Your task to perform on an android device: Show me the alarms in the clock app Image 0: 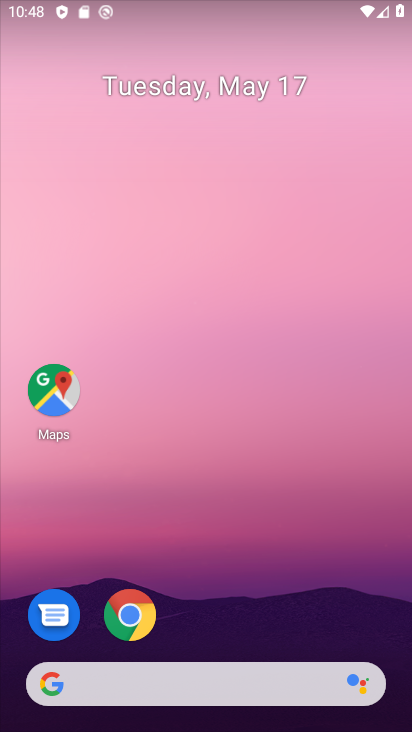
Step 0: drag from (236, 638) to (240, 309)
Your task to perform on an android device: Show me the alarms in the clock app Image 1: 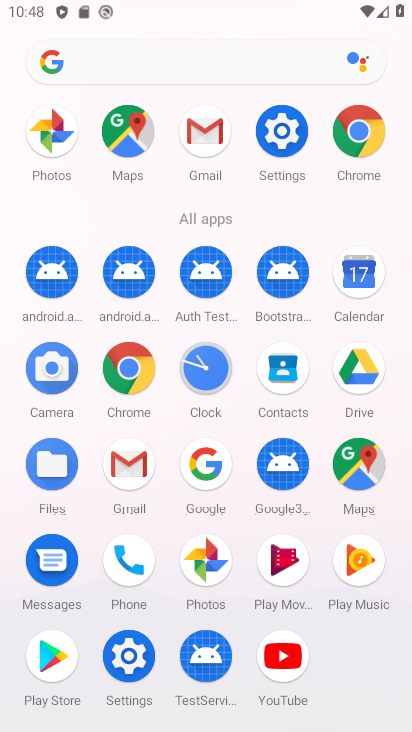
Step 1: click (193, 385)
Your task to perform on an android device: Show me the alarms in the clock app Image 2: 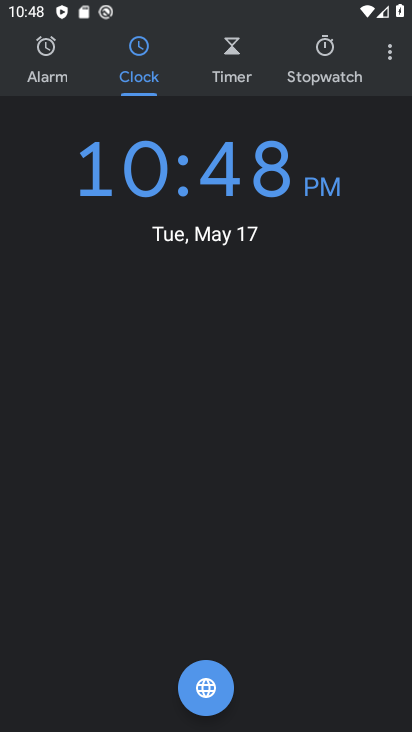
Step 2: click (64, 73)
Your task to perform on an android device: Show me the alarms in the clock app Image 3: 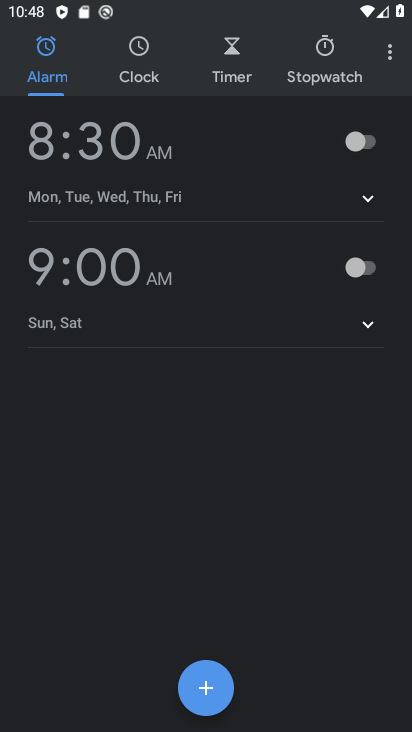
Step 3: task complete